Your task to perform on an android device: turn off notifications settings in the gmail app Image 0: 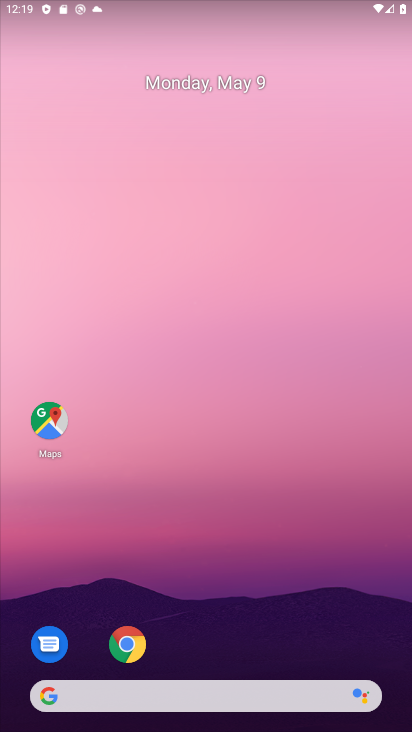
Step 0: drag from (306, 554) to (175, 133)
Your task to perform on an android device: turn off notifications settings in the gmail app Image 1: 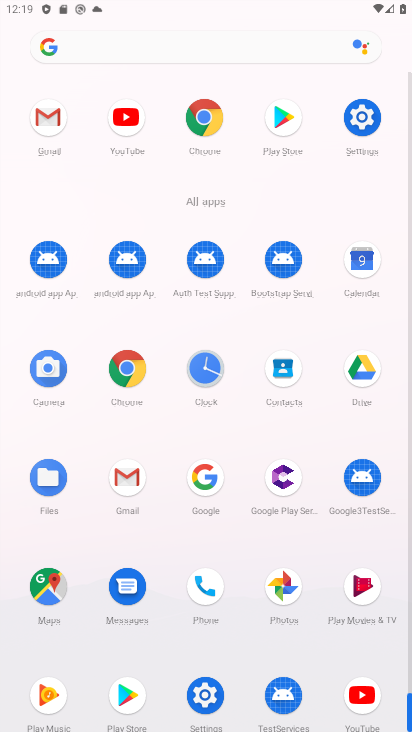
Step 1: click (52, 122)
Your task to perform on an android device: turn off notifications settings in the gmail app Image 2: 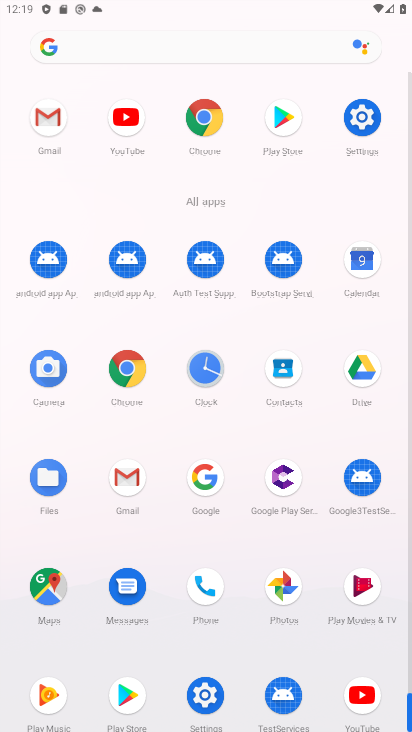
Step 2: click (52, 122)
Your task to perform on an android device: turn off notifications settings in the gmail app Image 3: 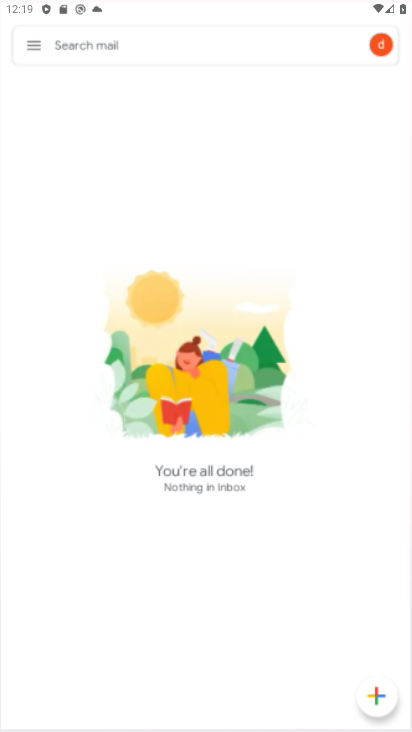
Step 3: click (52, 122)
Your task to perform on an android device: turn off notifications settings in the gmail app Image 4: 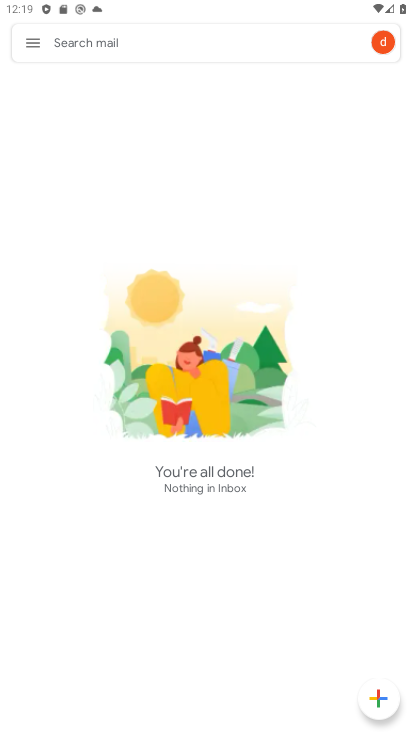
Step 4: click (24, 39)
Your task to perform on an android device: turn off notifications settings in the gmail app Image 5: 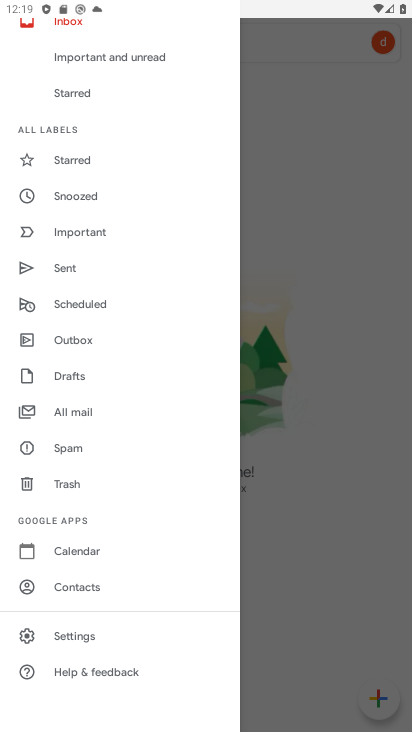
Step 5: click (70, 632)
Your task to perform on an android device: turn off notifications settings in the gmail app Image 6: 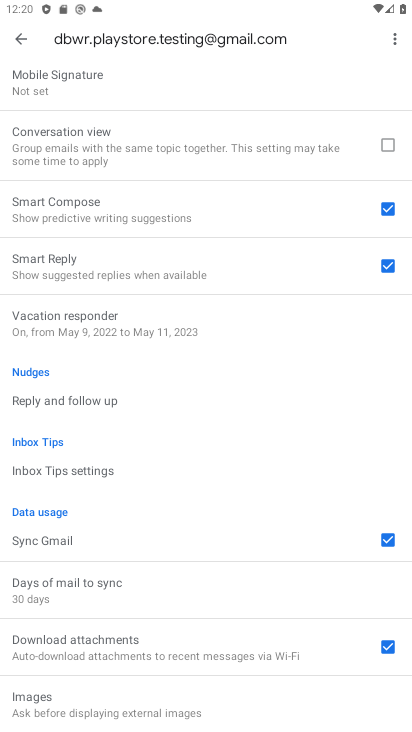
Step 6: drag from (103, 242) to (168, 606)
Your task to perform on an android device: turn off notifications settings in the gmail app Image 7: 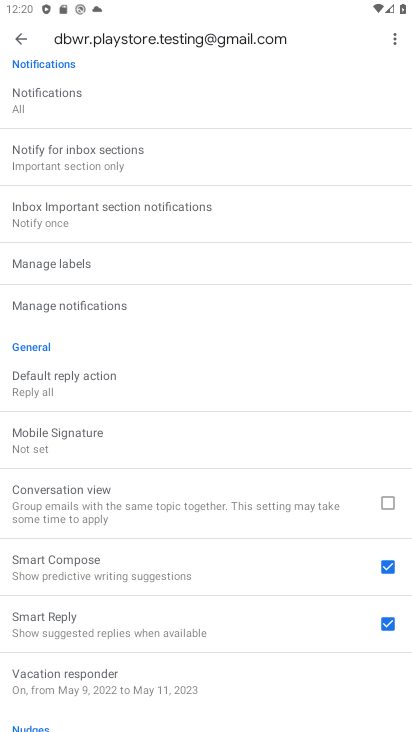
Step 7: click (47, 92)
Your task to perform on an android device: turn off notifications settings in the gmail app Image 8: 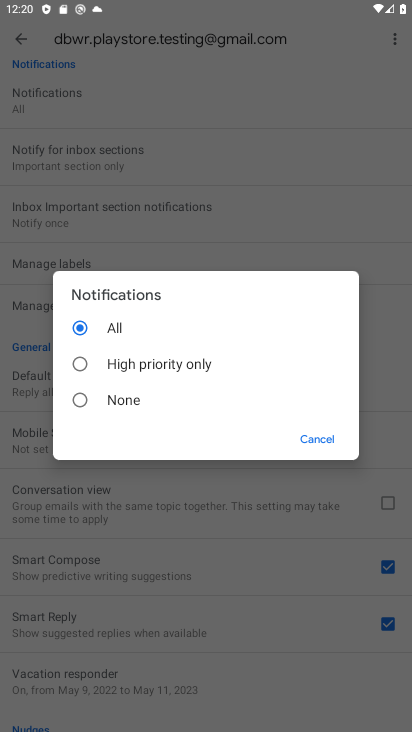
Step 8: click (73, 371)
Your task to perform on an android device: turn off notifications settings in the gmail app Image 9: 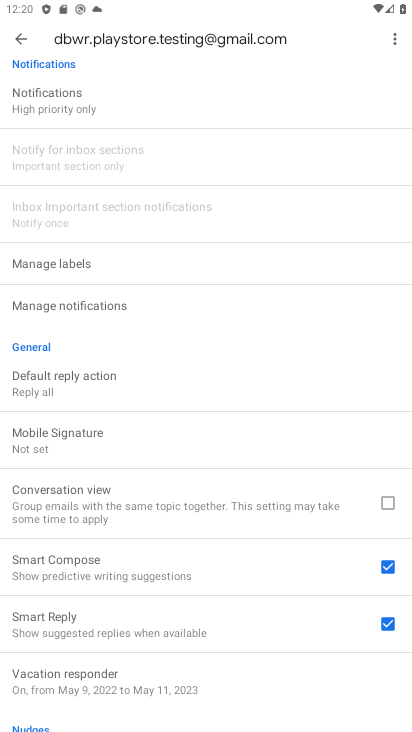
Step 9: task complete